Your task to perform on an android device: turn on javascript in the chrome app Image 0: 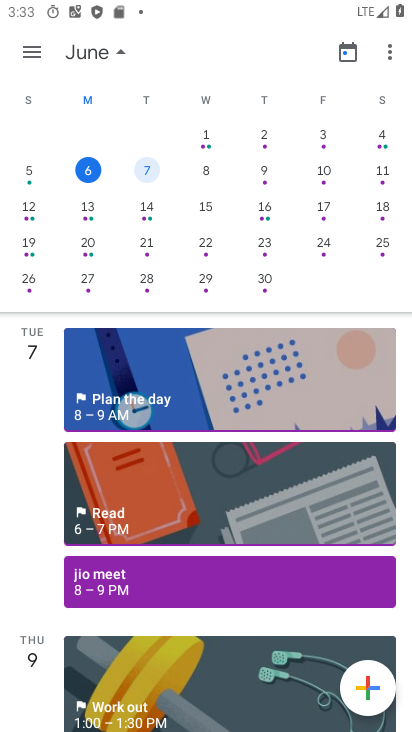
Step 0: press home button
Your task to perform on an android device: turn on javascript in the chrome app Image 1: 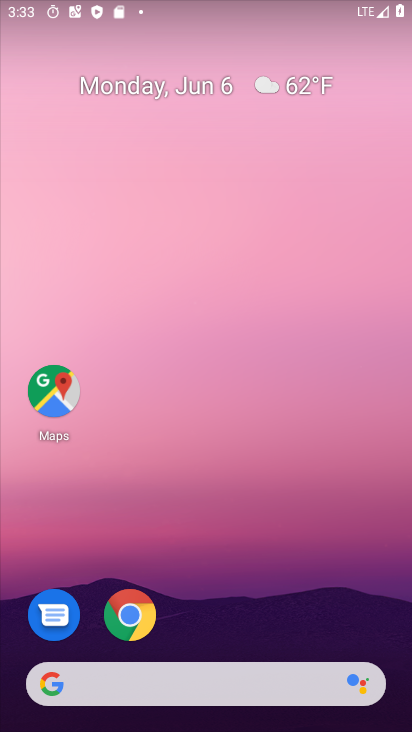
Step 1: drag from (213, 656) to (196, 115)
Your task to perform on an android device: turn on javascript in the chrome app Image 2: 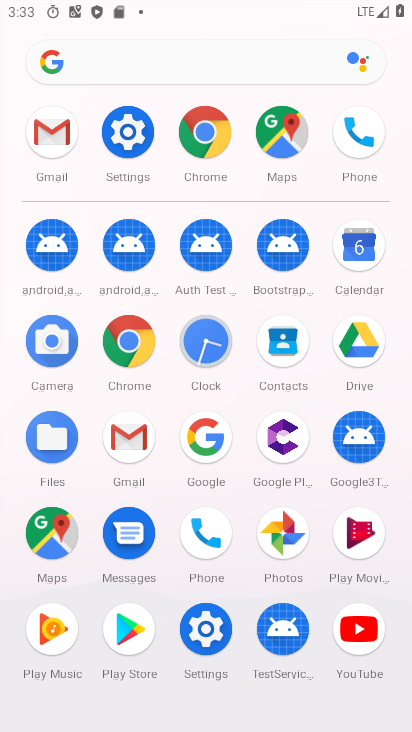
Step 2: click (127, 339)
Your task to perform on an android device: turn on javascript in the chrome app Image 3: 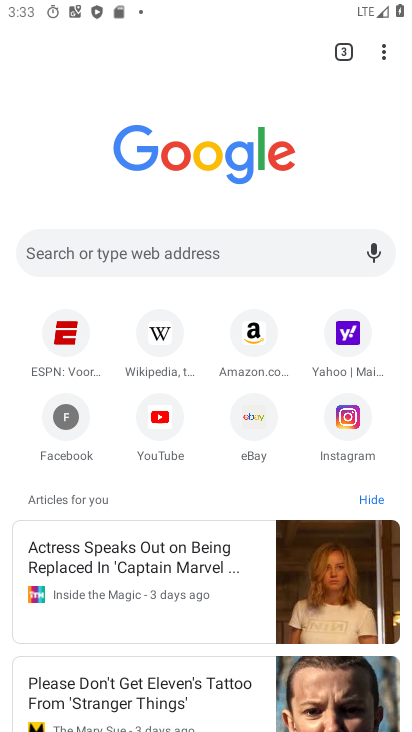
Step 3: drag from (394, 42) to (211, 441)
Your task to perform on an android device: turn on javascript in the chrome app Image 4: 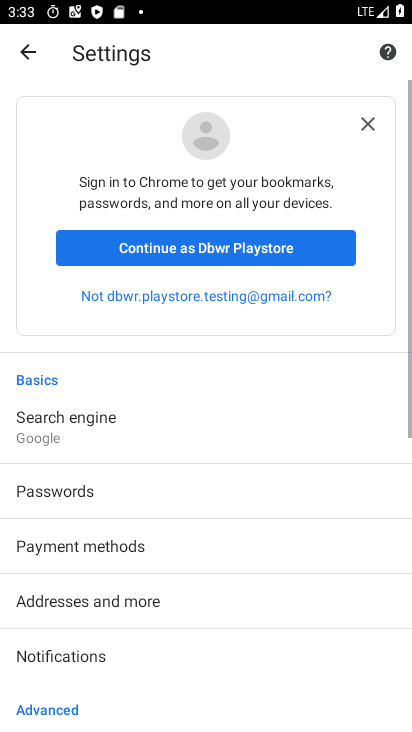
Step 4: drag from (234, 710) to (228, 182)
Your task to perform on an android device: turn on javascript in the chrome app Image 5: 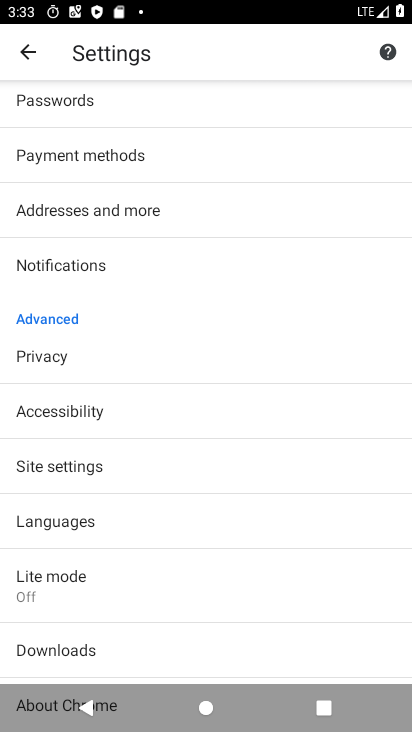
Step 5: click (80, 472)
Your task to perform on an android device: turn on javascript in the chrome app Image 6: 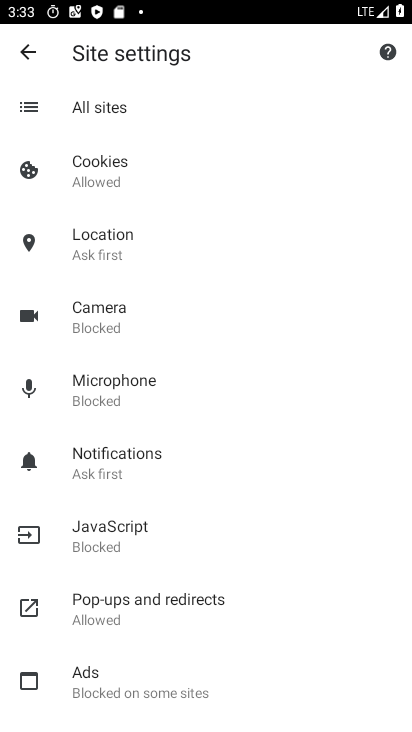
Step 6: click (127, 527)
Your task to perform on an android device: turn on javascript in the chrome app Image 7: 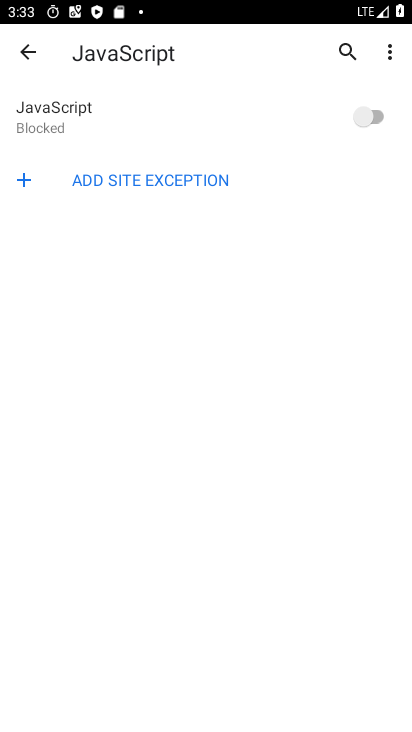
Step 7: click (380, 117)
Your task to perform on an android device: turn on javascript in the chrome app Image 8: 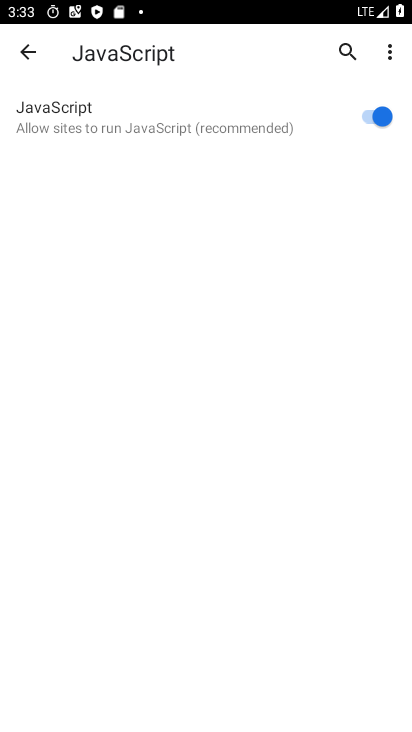
Step 8: task complete